Your task to perform on an android device: turn off smart reply in the gmail app Image 0: 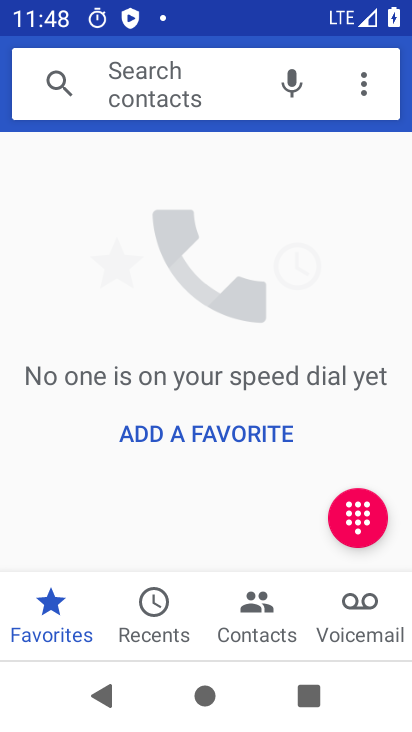
Step 0: press back button
Your task to perform on an android device: turn off smart reply in the gmail app Image 1: 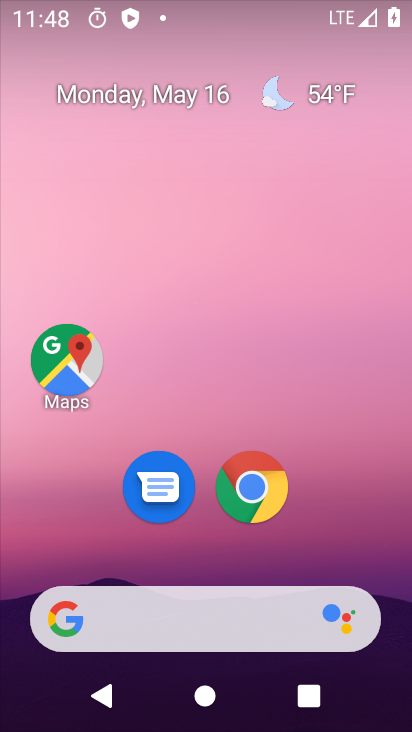
Step 1: drag from (206, 545) to (254, 65)
Your task to perform on an android device: turn off smart reply in the gmail app Image 2: 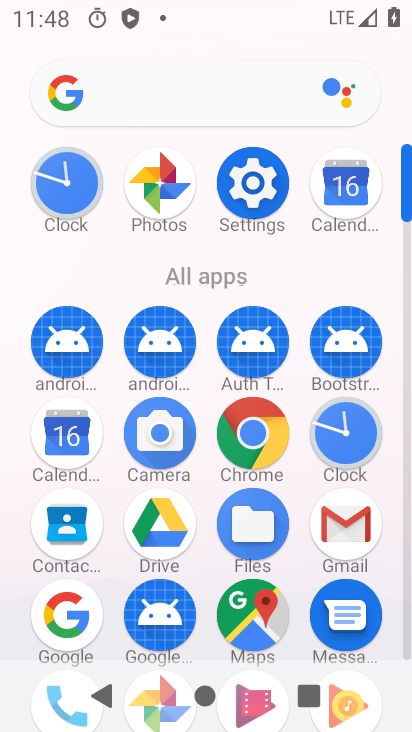
Step 2: click (337, 547)
Your task to perform on an android device: turn off smart reply in the gmail app Image 3: 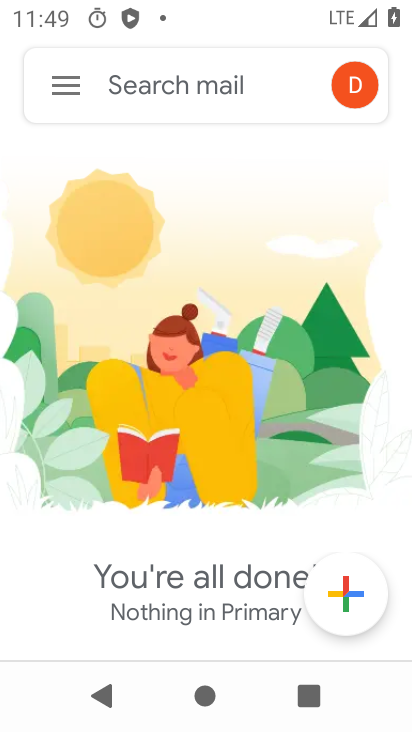
Step 3: click (59, 91)
Your task to perform on an android device: turn off smart reply in the gmail app Image 4: 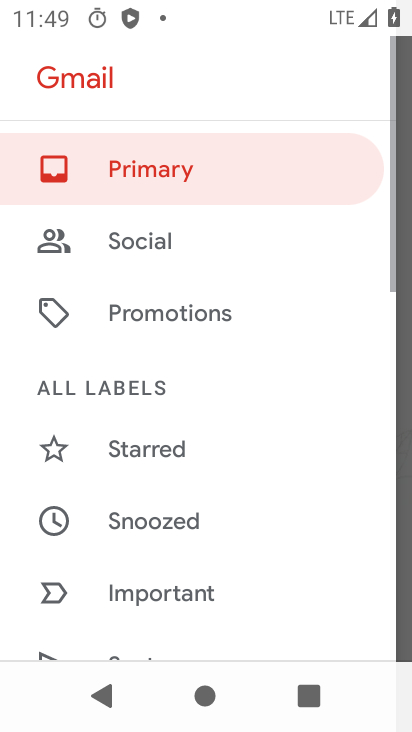
Step 4: drag from (161, 520) to (272, 13)
Your task to perform on an android device: turn off smart reply in the gmail app Image 5: 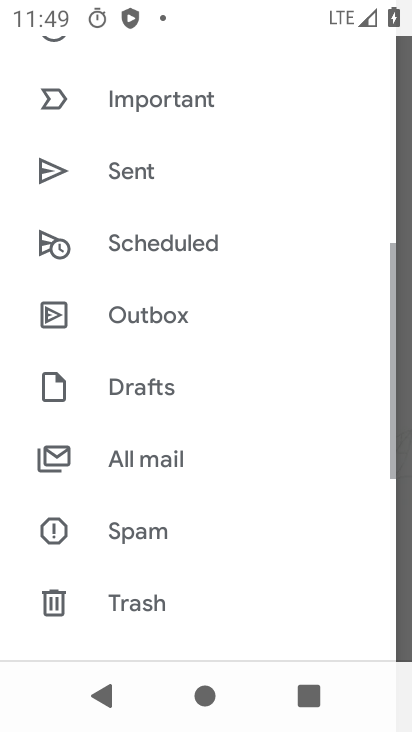
Step 5: drag from (204, 565) to (303, 16)
Your task to perform on an android device: turn off smart reply in the gmail app Image 6: 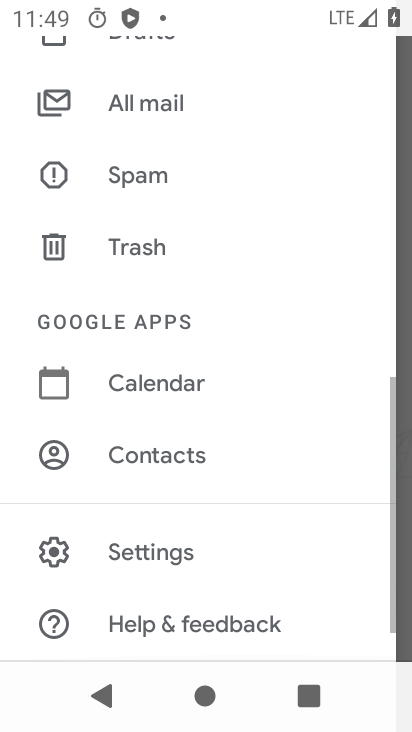
Step 6: click (134, 544)
Your task to perform on an android device: turn off smart reply in the gmail app Image 7: 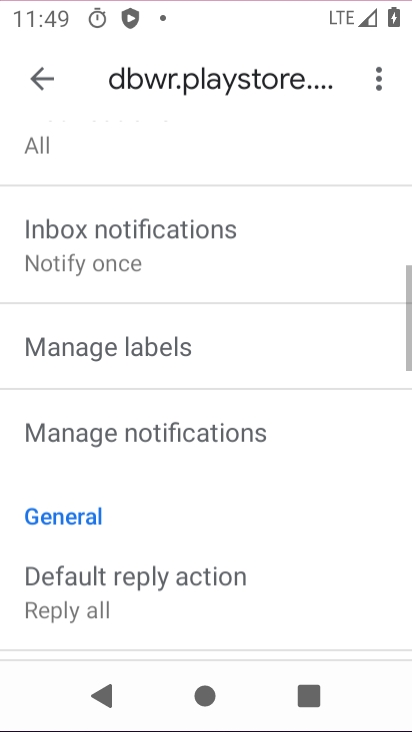
Step 7: drag from (186, 564) to (297, 14)
Your task to perform on an android device: turn off smart reply in the gmail app Image 8: 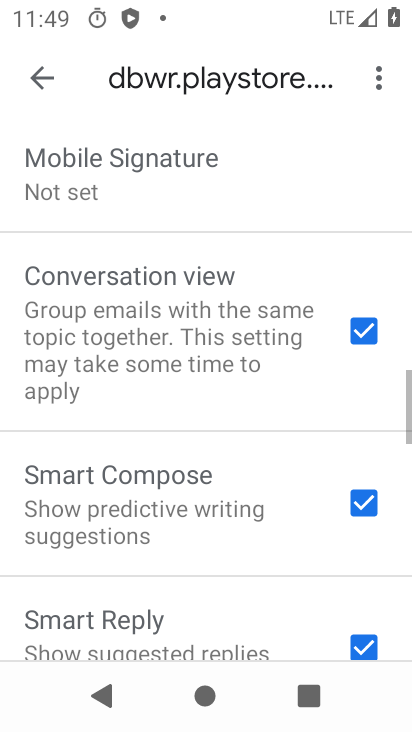
Step 8: drag from (177, 552) to (282, 14)
Your task to perform on an android device: turn off smart reply in the gmail app Image 9: 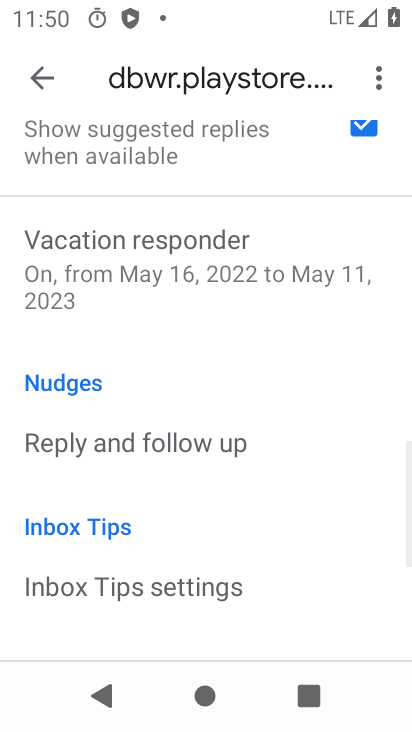
Step 9: drag from (243, 267) to (233, 600)
Your task to perform on an android device: turn off smart reply in the gmail app Image 10: 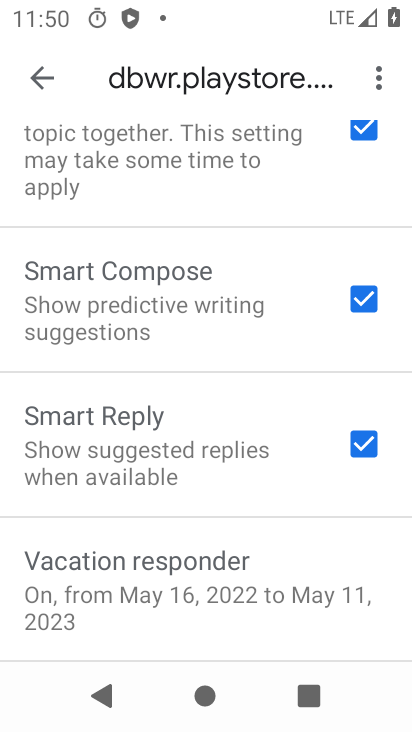
Step 10: click (360, 443)
Your task to perform on an android device: turn off smart reply in the gmail app Image 11: 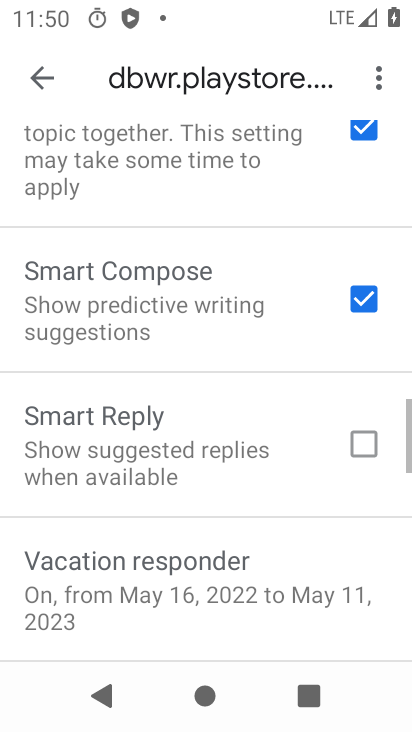
Step 11: task complete